Your task to perform on an android device: add a contact in the contacts app Image 0: 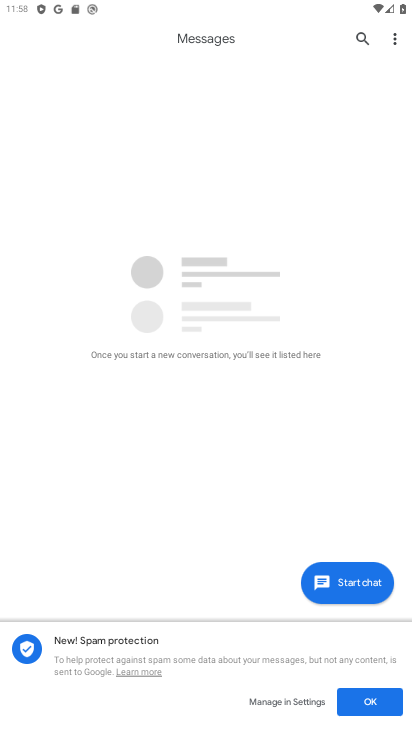
Step 0: drag from (233, 564) to (264, 118)
Your task to perform on an android device: add a contact in the contacts app Image 1: 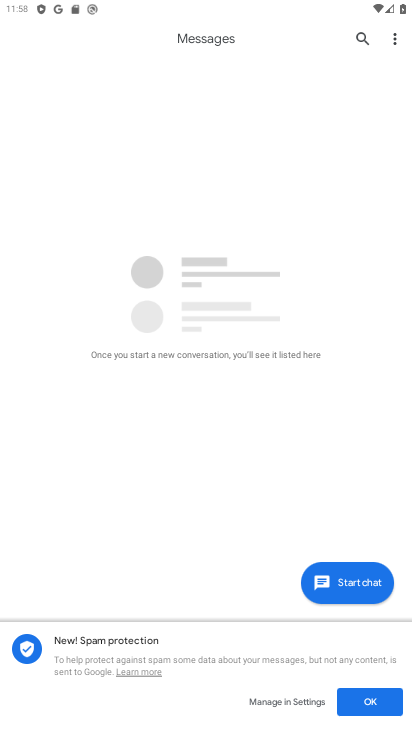
Step 1: press home button
Your task to perform on an android device: add a contact in the contacts app Image 2: 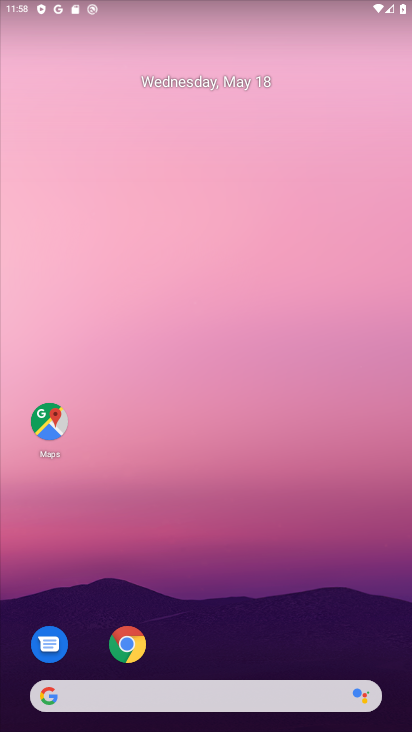
Step 2: drag from (330, 622) to (331, 234)
Your task to perform on an android device: add a contact in the contacts app Image 3: 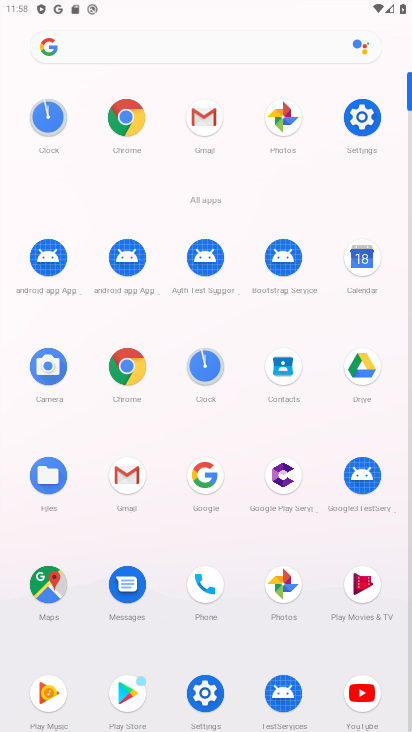
Step 3: click (282, 365)
Your task to perform on an android device: add a contact in the contacts app Image 4: 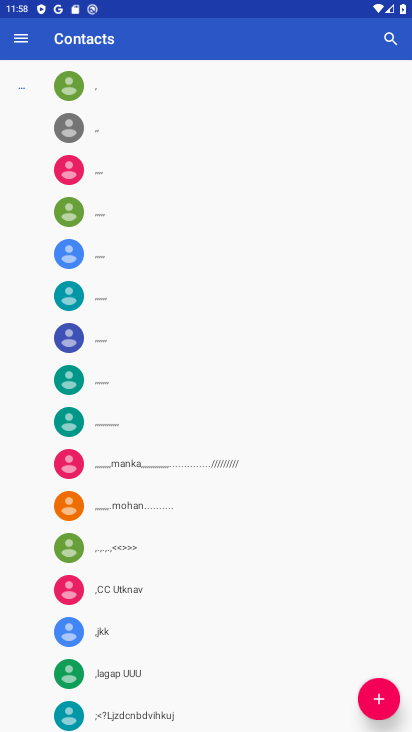
Step 4: click (367, 697)
Your task to perform on an android device: add a contact in the contacts app Image 5: 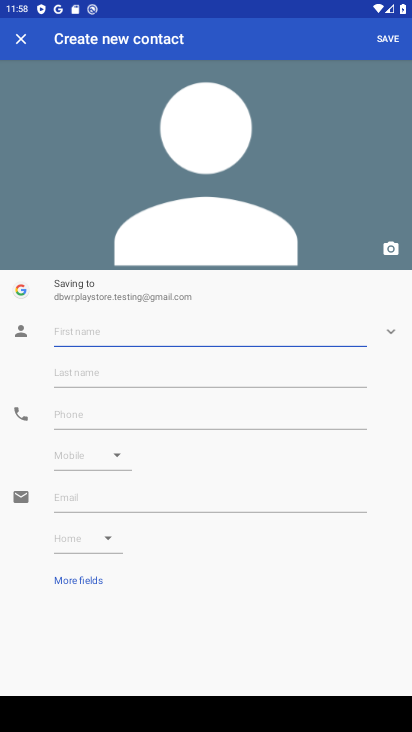
Step 5: click (263, 335)
Your task to perform on an android device: add a contact in the contacts app Image 6: 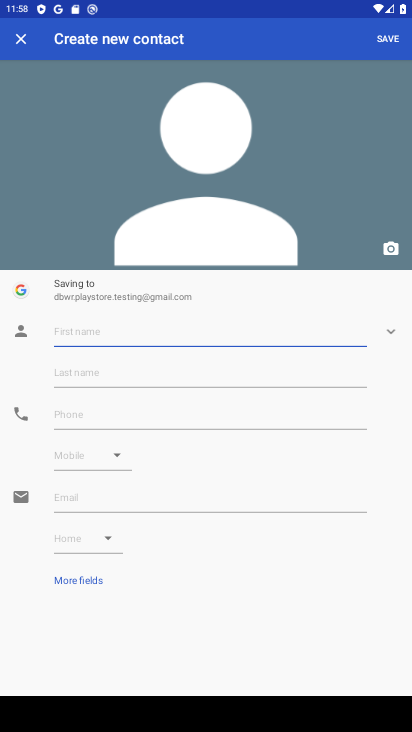
Step 6: type "yfr"
Your task to perform on an android device: add a contact in the contacts app Image 7: 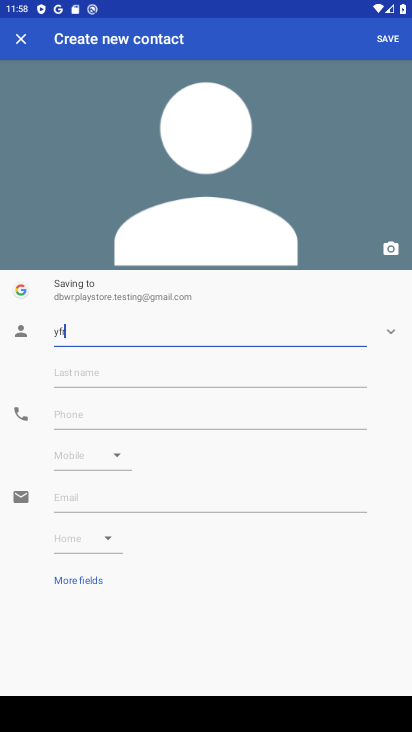
Step 7: click (130, 406)
Your task to perform on an android device: add a contact in the contacts app Image 8: 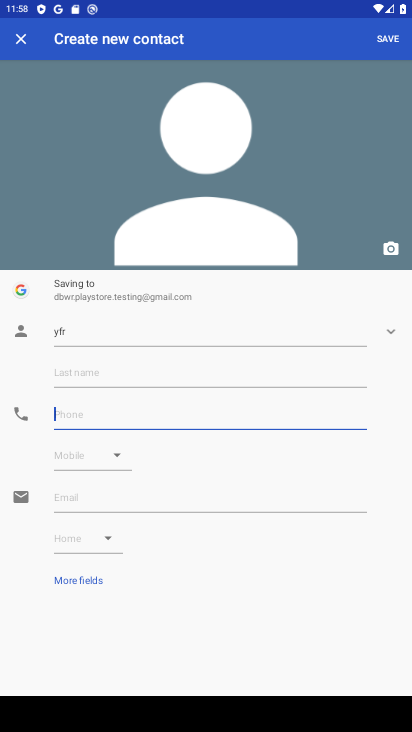
Step 8: type "987667658"
Your task to perform on an android device: add a contact in the contacts app Image 9: 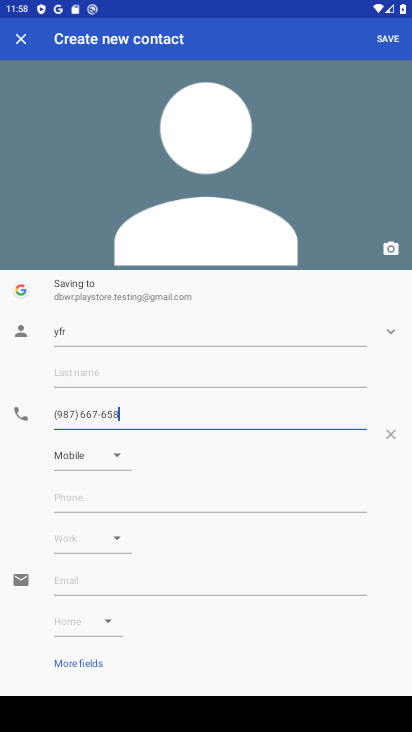
Step 9: click (393, 40)
Your task to perform on an android device: add a contact in the contacts app Image 10: 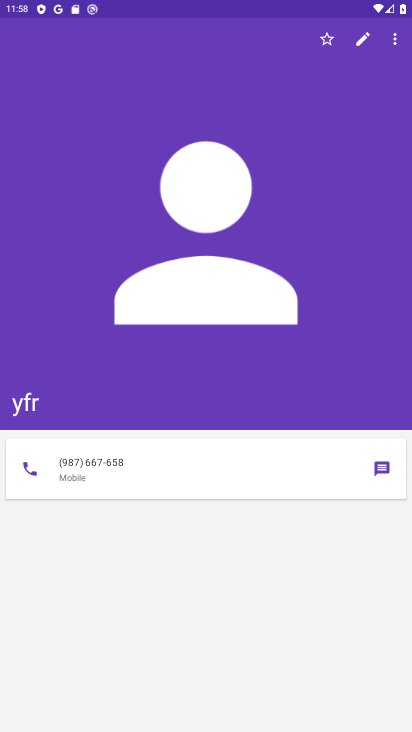
Step 10: task complete